Your task to perform on an android device: What's the weather today? Image 0: 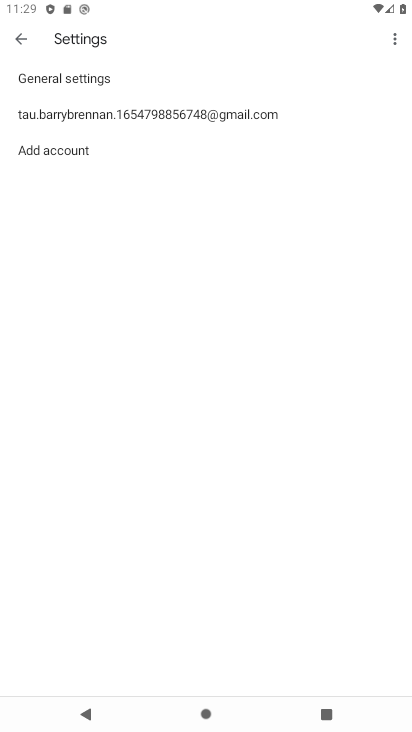
Step 0: press back button
Your task to perform on an android device: What's the weather today? Image 1: 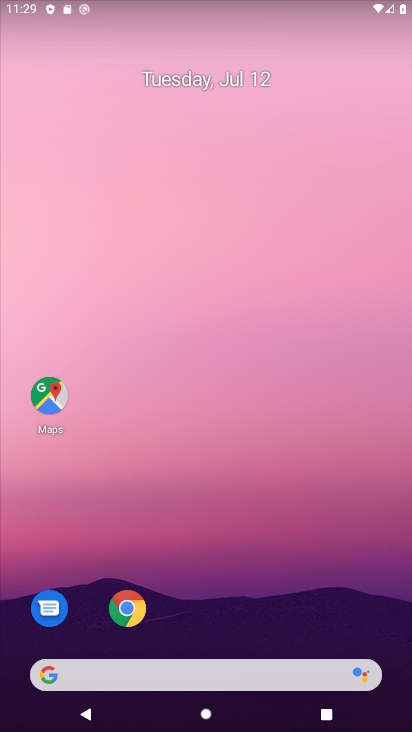
Step 1: click (131, 674)
Your task to perform on an android device: What's the weather today? Image 2: 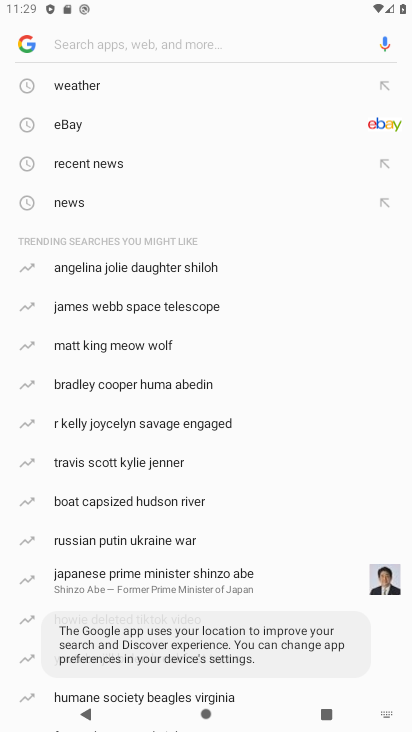
Step 2: click (85, 74)
Your task to perform on an android device: What's the weather today? Image 3: 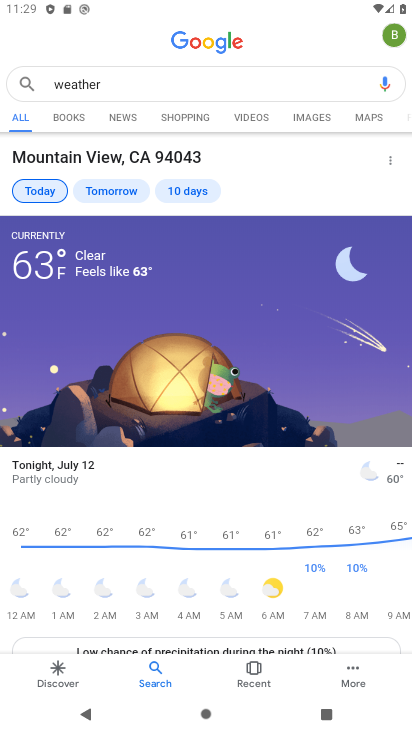
Step 3: task complete